Your task to perform on an android device: turn off picture-in-picture Image 0: 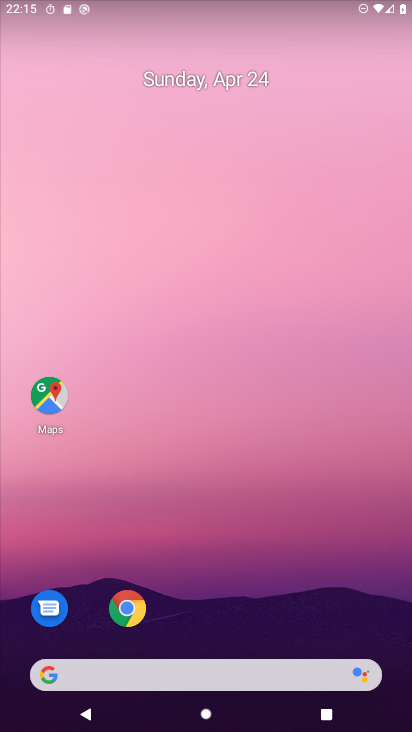
Step 0: click (139, 606)
Your task to perform on an android device: turn off picture-in-picture Image 1: 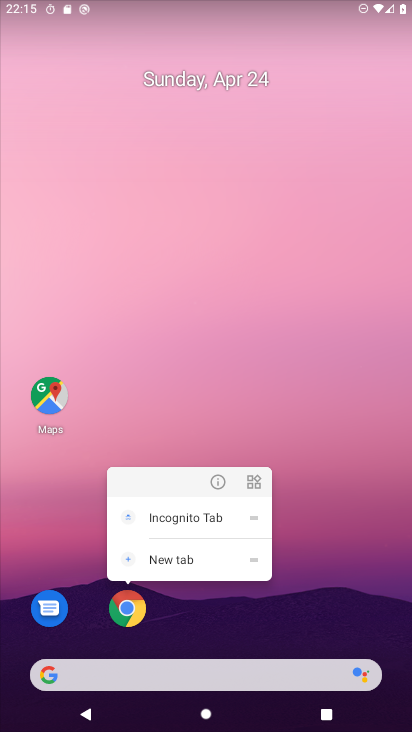
Step 1: click (219, 478)
Your task to perform on an android device: turn off picture-in-picture Image 2: 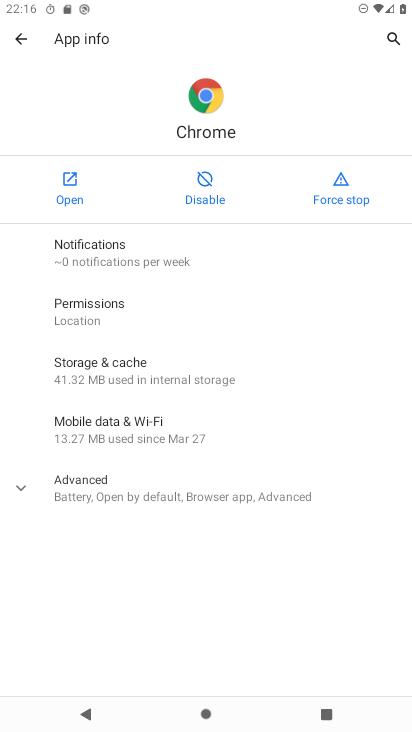
Step 2: click (25, 482)
Your task to perform on an android device: turn off picture-in-picture Image 3: 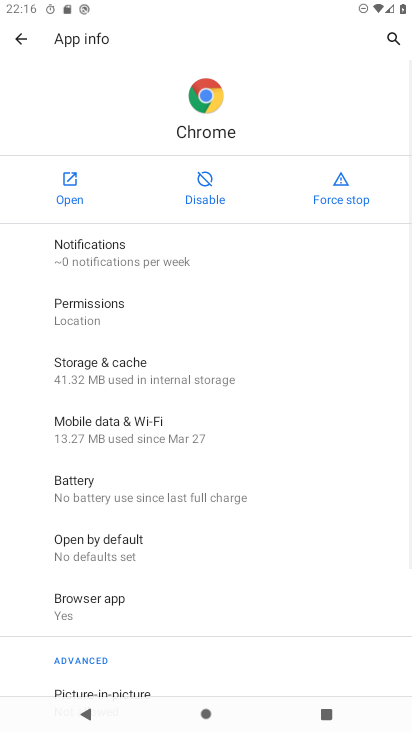
Step 3: task complete